Your task to perform on an android device: visit the assistant section in the google photos Image 0: 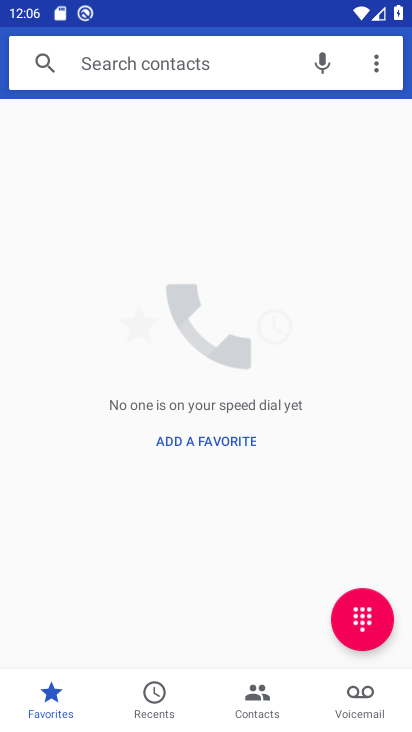
Step 0: press home button
Your task to perform on an android device: visit the assistant section in the google photos Image 1: 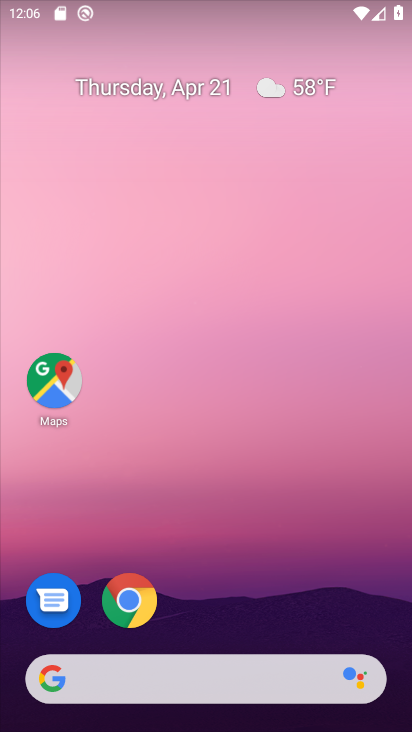
Step 1: drag from (204, 571) to (197, 134)
Your task to perform on an android device: visit the assistant section in the google photos Image 2: 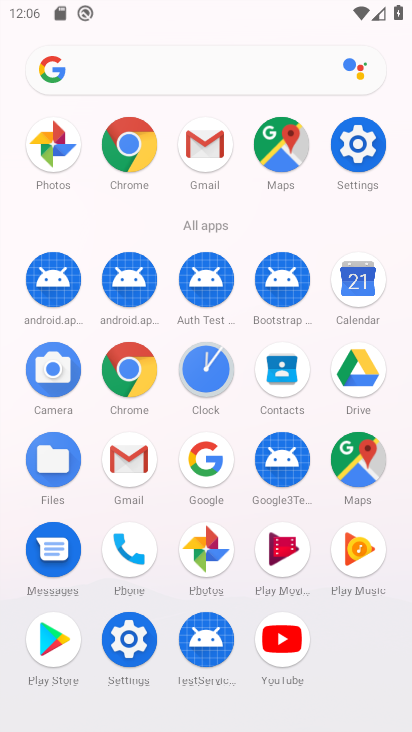
Step 2: click (61, 151)
Your task to perform on an android device: visit the assistant section in the google photos Image 3: 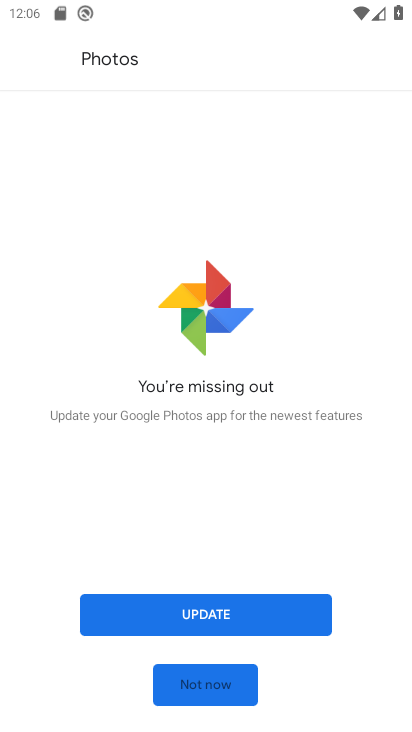
Step 3: click (210, 681)
Your task to perform on an android device: visit the assistant section in the google photos Image 4: 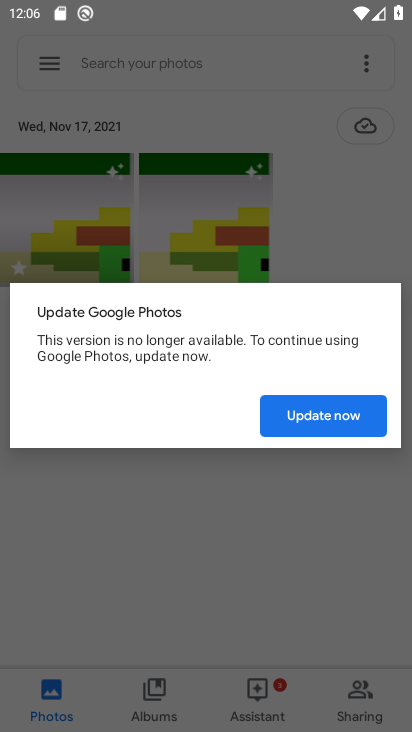
Step 4: click (344, 414)
Your task to perform on an android device: visit the assistant section in the google photos Image 5: 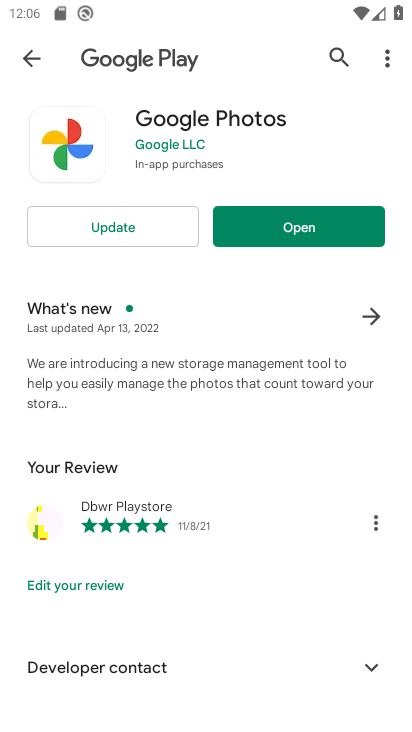
Step 5: press back button
Your task to perform on an android device: visit the assistant section in the google photos Image 6: 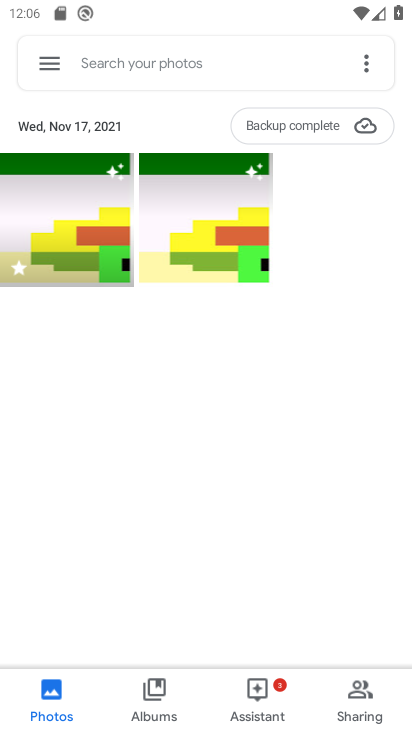
Step 6: click (262, 690)
Your task to perform on an android device: visit the assistant section in the google photos Image 7: 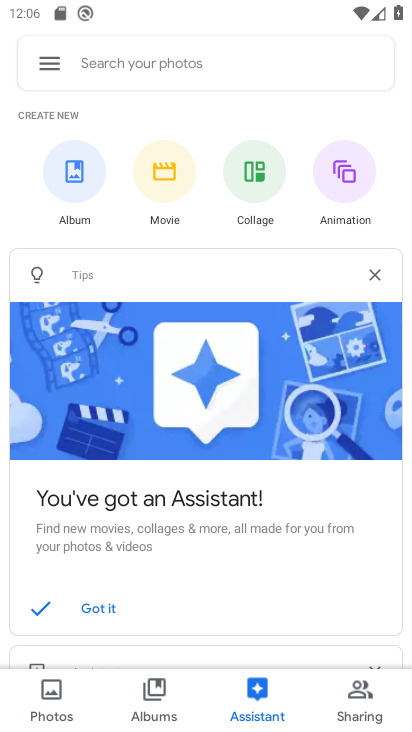
Step 7: task complete